Your task to perform on an android device: check android version Image 0: 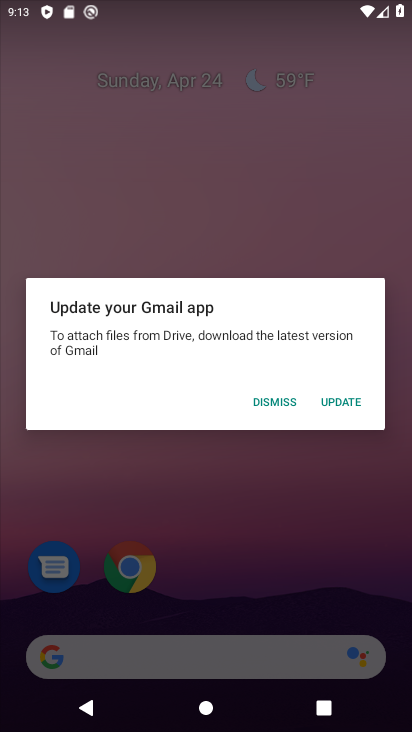
Step 0: press home button
Your task to perform on an android device: check android version Image 1: 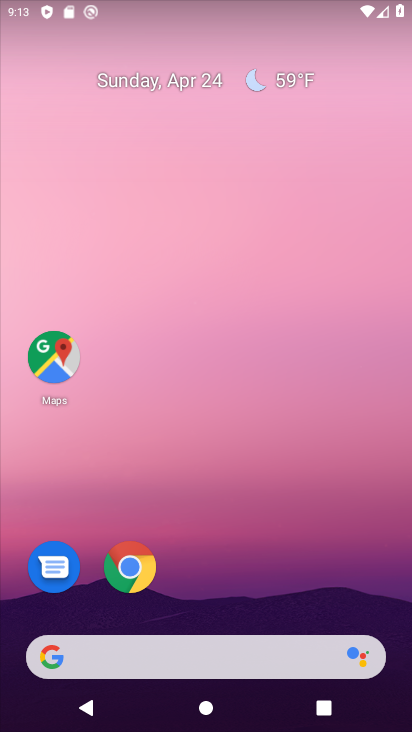
Step 1: drag from (316, 256) to (314, 210)
Your task to perform on an android device: check android version Image 2: 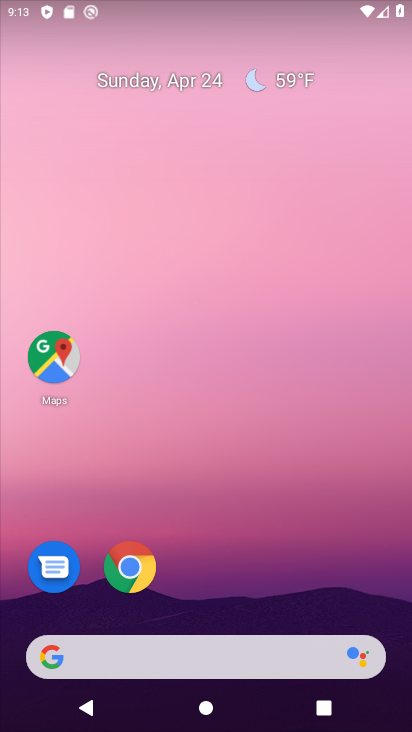
Step 2: drag from (406, 644) to (300, 81)
Your task to perform on an android device: check android version Image 3: 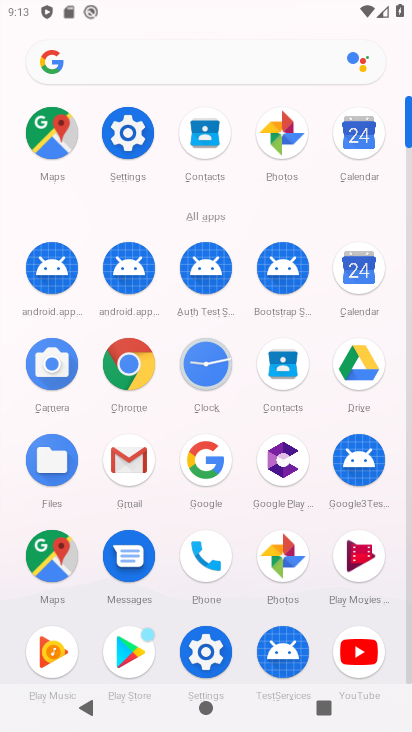
Step 3: click (125, 142)
Your task to perform on an android device: check android version Image 4: 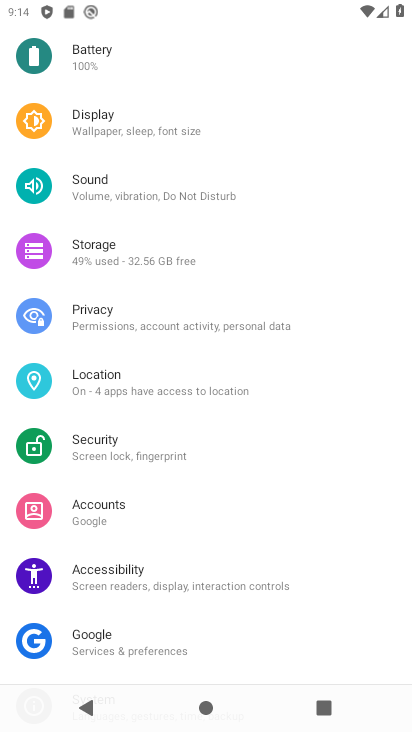
Step 4: click (357, 215)
Your task to perform on an android device: check android version Image 5: 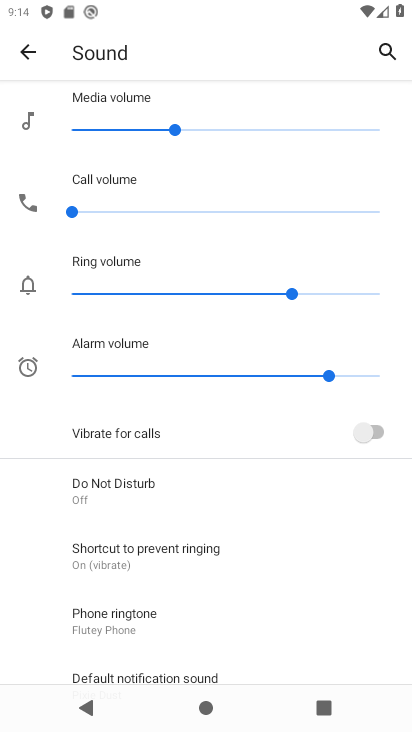
Step 5: drag from (278, 634) to (302, 101)
Your task to perform on an android device: check android version Image 6: 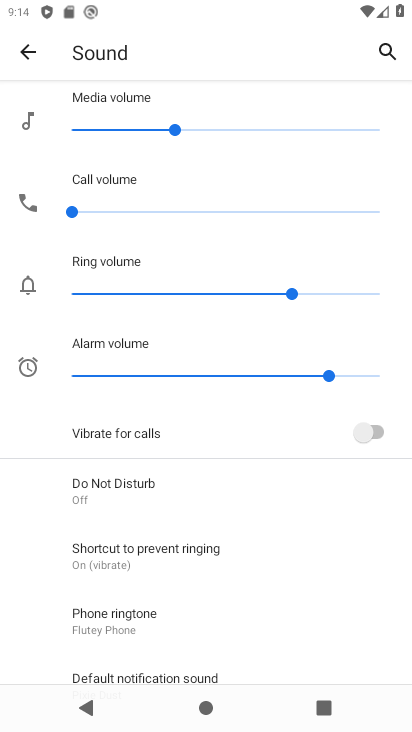
Step 6: click (25, 50)
Your task to perform on an android device: check android version Image 7: 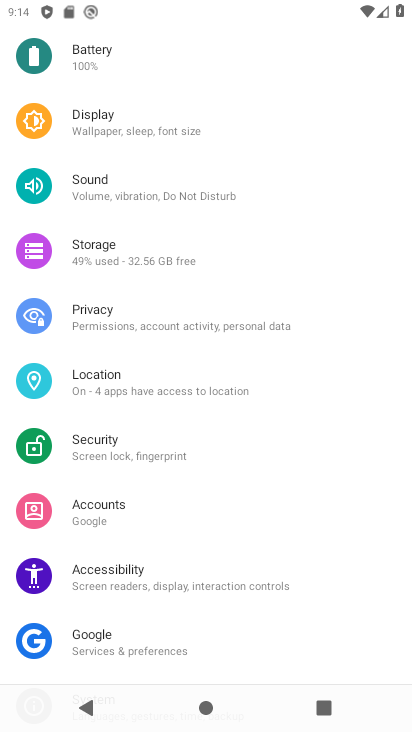
Step 7: drag from (335, 637) to (343, 108)
Your task to perform on an android device: check android version Image 8: 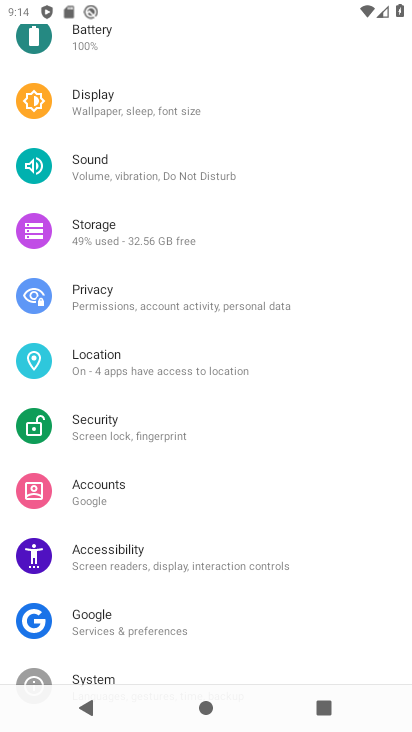
Step 8: drag from (353, 558) to (352, 349)
Your task to perform on an android device: check android version Image 9: 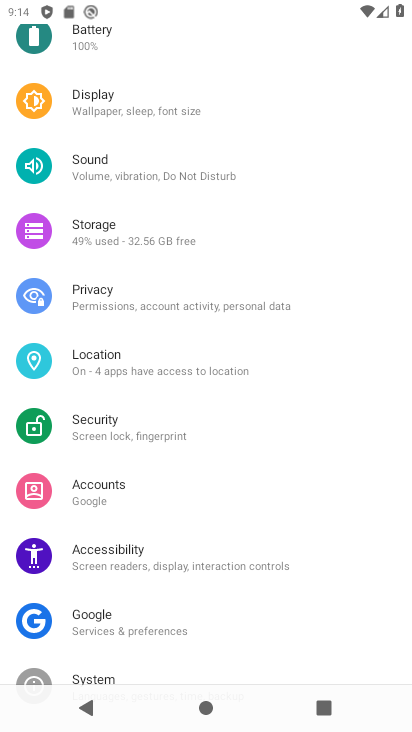
Step 9: drag from (361, 625) to (345, 303)
Your task to perform on an android device: check android version Image 10: 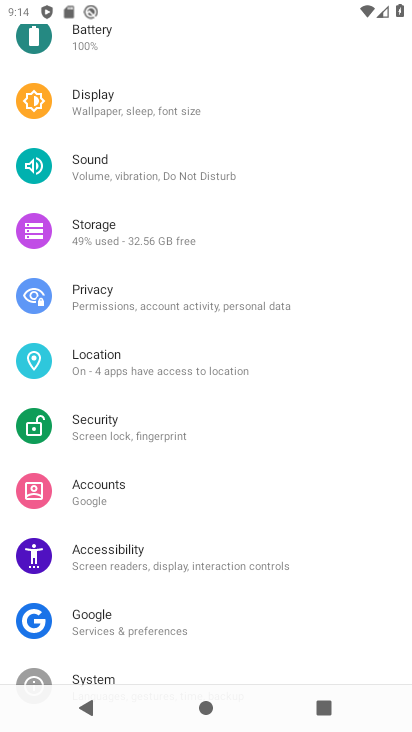
Step 10: drag from (381, 444) to (374, 170)
Your task to perform on an android device: check android version Image 11: 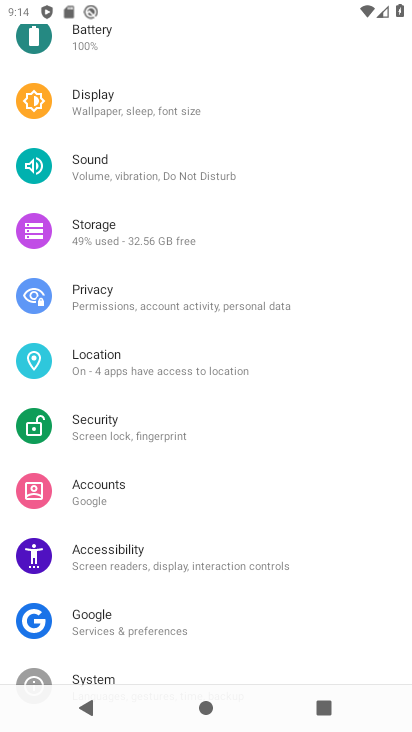
Step 11: drag from (386, 337) to (377, 108)
Your task to perform on an android device: check android version Image 12: 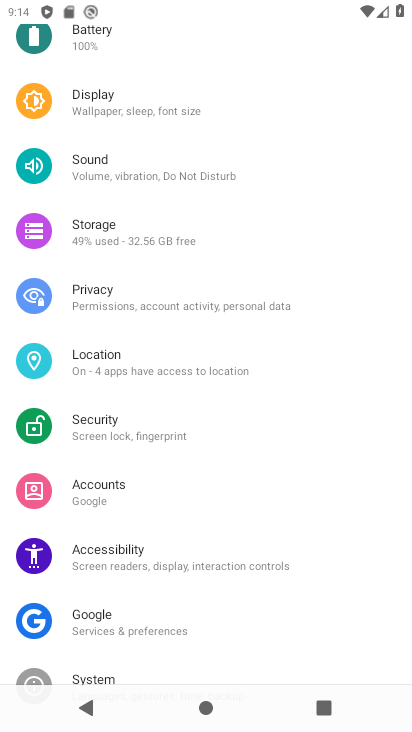
Step 12: drag from (367, 348) to (361, 181)
Your task to perform on an android device: check android version Image 13: 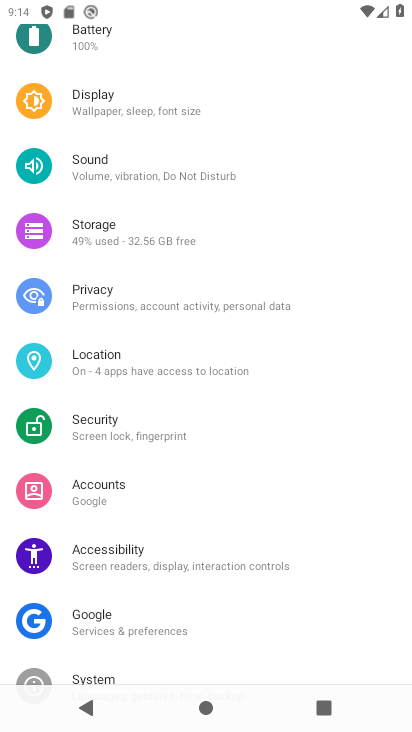
Step 13: drag from (352, 650) to (373, 256)
Your task to perform on an android device: check android version Image 14: 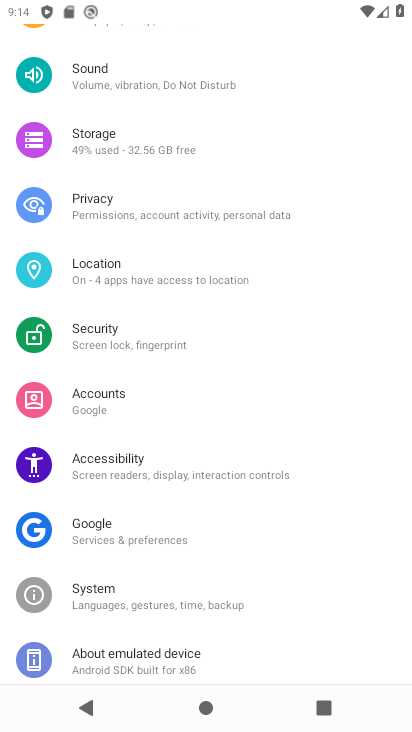
Step 14: click (134, 655)
Your task to perform on an android device: check android version Image 15: 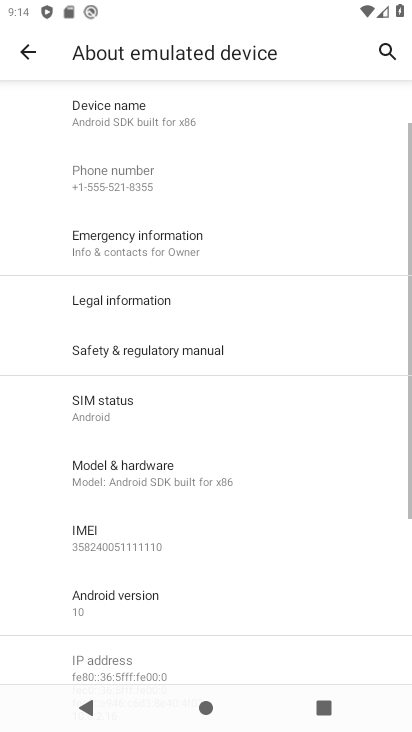
Step 15: click (126, 600)
Your task to perform on an android device: check android version Image 16: 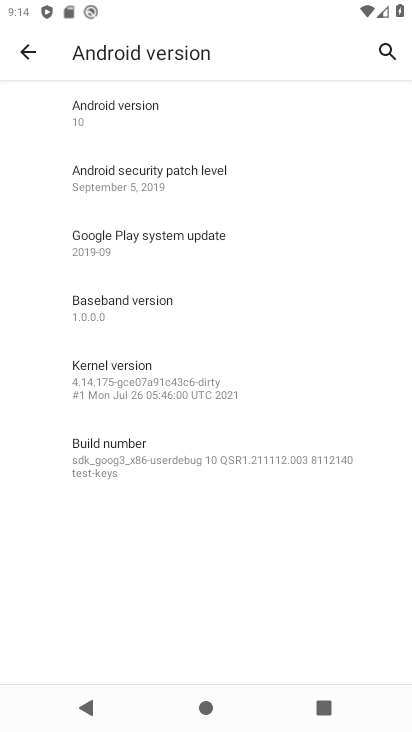
Step 16: task complete